Your task to perform on an android device: Open Amazon Image 0: 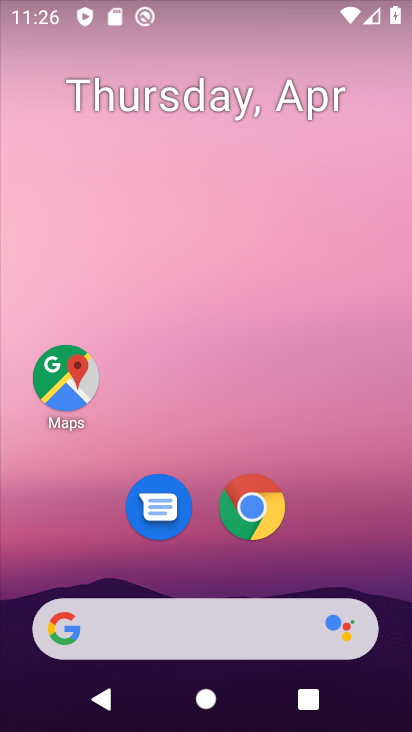
Step 0: click (255, 504)
Your task to perform on an android device: Open Amazon Image 1: 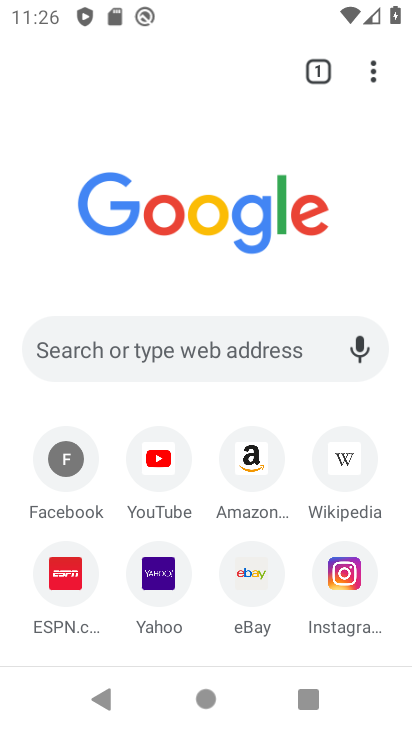
Step 1: click (255, 462)
Your task to perform on an android device: Open Amazon Image 2: 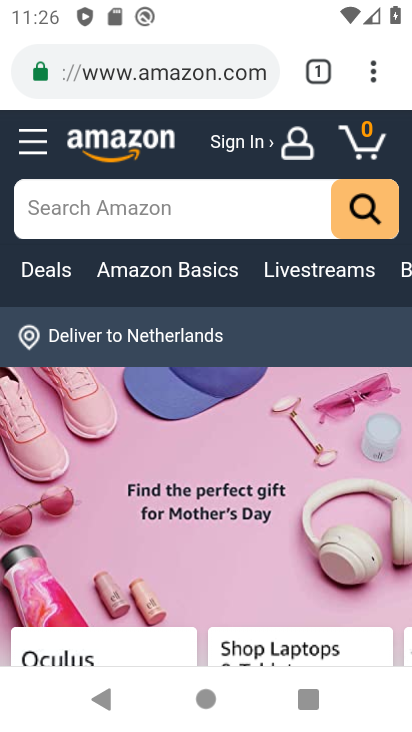
Step 2: task complete